Your task to perform on an android device: Go to Amazon Image 0: 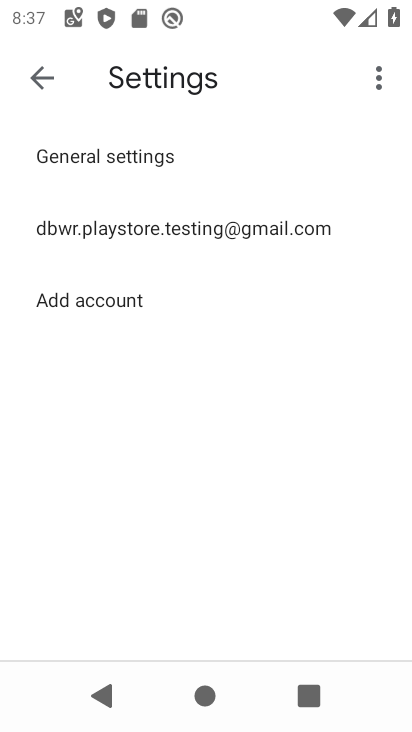
Step 0: press home button
Your task to perform on an android device: Go to Amazon Image 1: 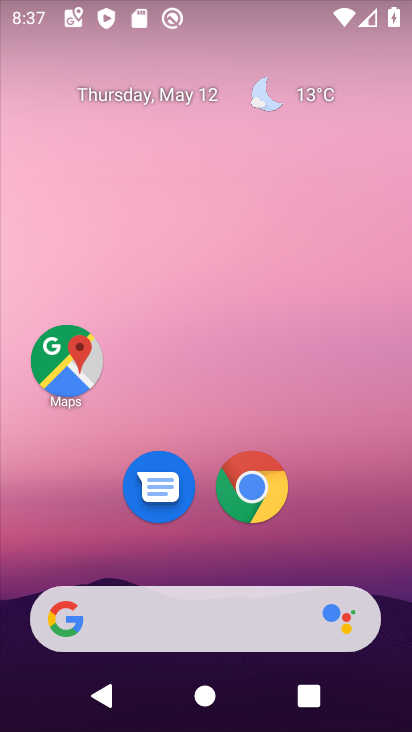
Step 1: click (246, 490)
Your task to perform on an android device: Go to Amazon Image 2: 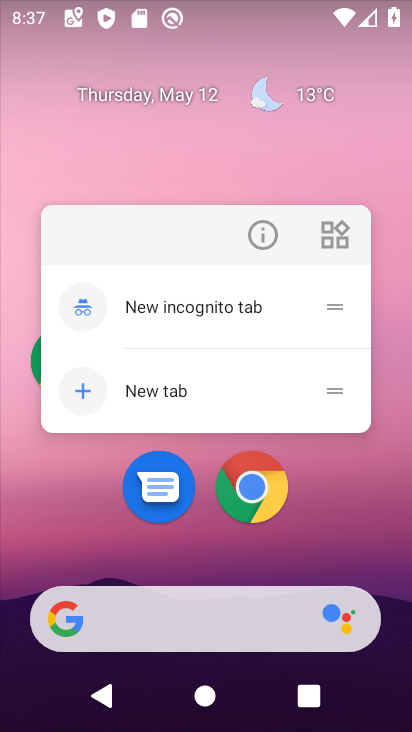
Step 2: click (264, 494)
Your task to perform on an android device: Go to Amazon Image 3: 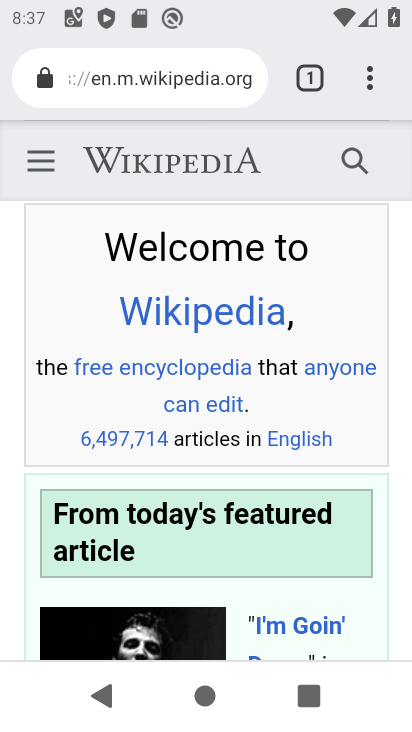
Step 3: click (173, 82)
Your task to perform on an android device: Go to Amazon Image 4: 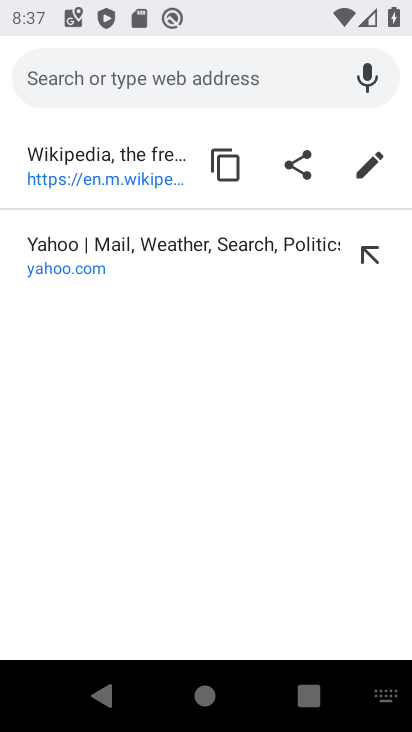
Step 4: type "amazon"
Your task to perform on an android device: Go to Amazon Image 5: 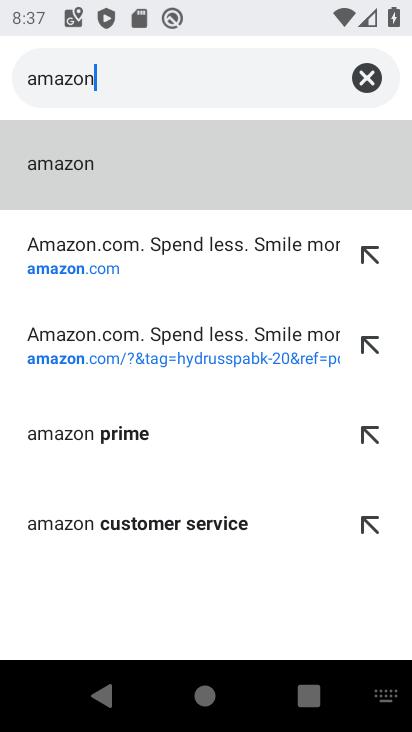
Step 5: click (59, 173)
Your task to perform on an android device: Go to Amazon Image 6: 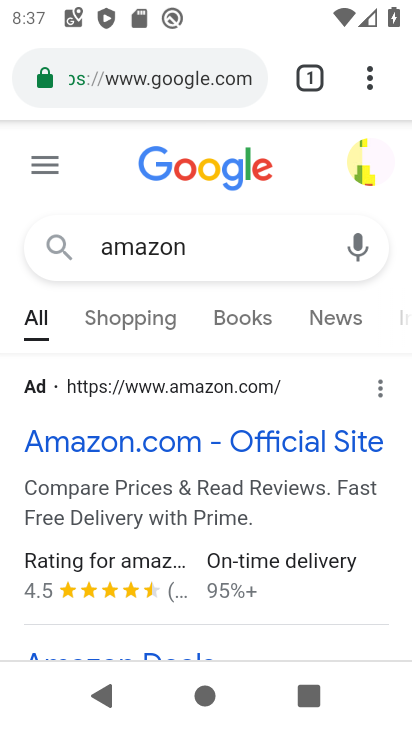
Step 6: click (84, 446)
Your task to perform on an android device: Go to Amazon Image 7: 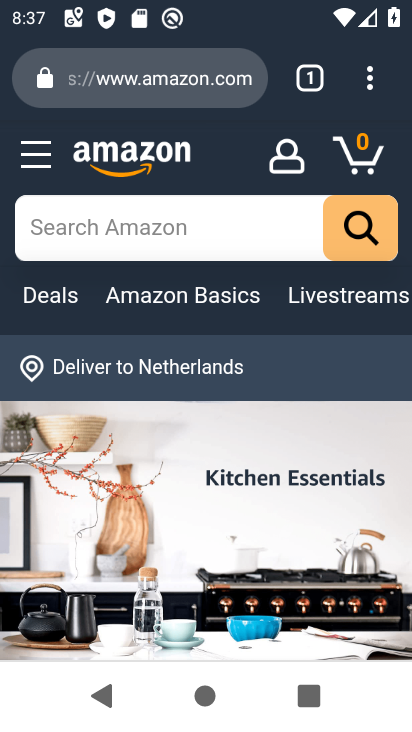
Step 7: task complete